Your task to perform on an android device: clear all cookies in the chrome app Image 0: 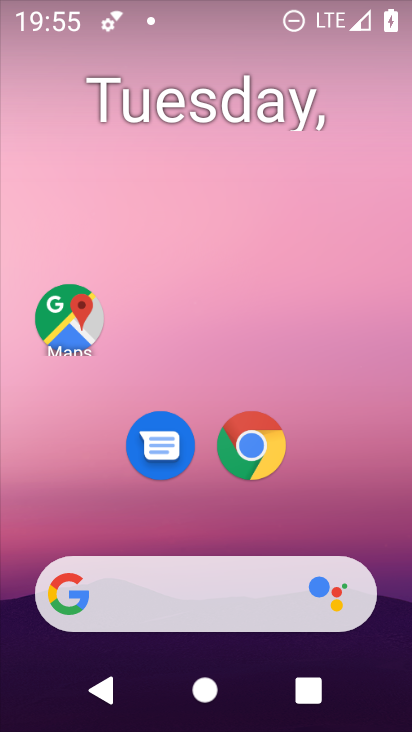
Step 0: click (265, 450)
Your task to perform on an android device: clear all cookies in the chrome app Image 1: 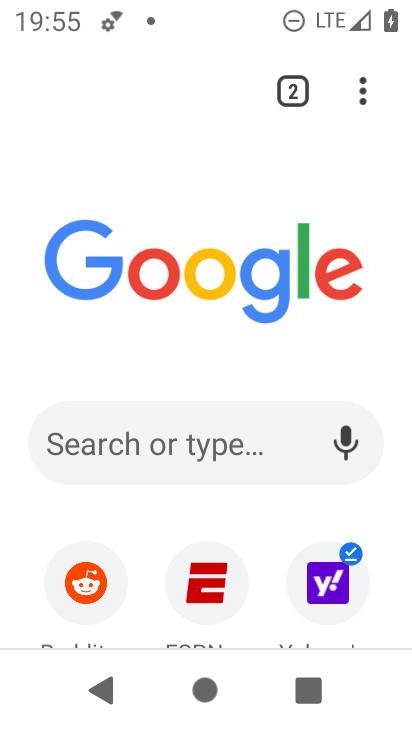
Step 1: click (353, 102)
Your task to perform on an android device: clear all cookies in the chrome app Image 2: 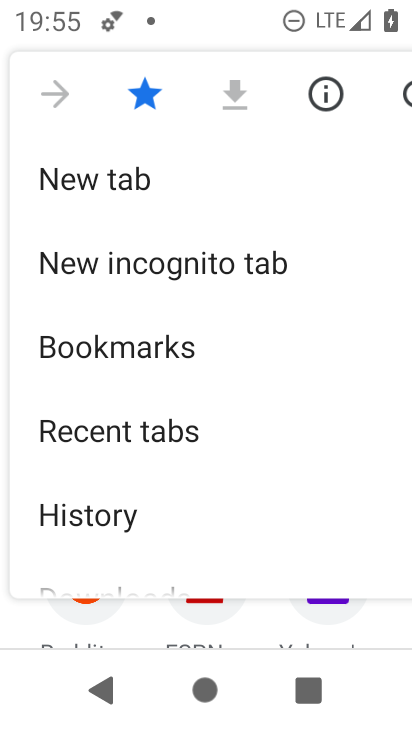
Step 2: click (75, 511)
Your task to perform on an android device: clear all cookies in the chrome app Image 3: 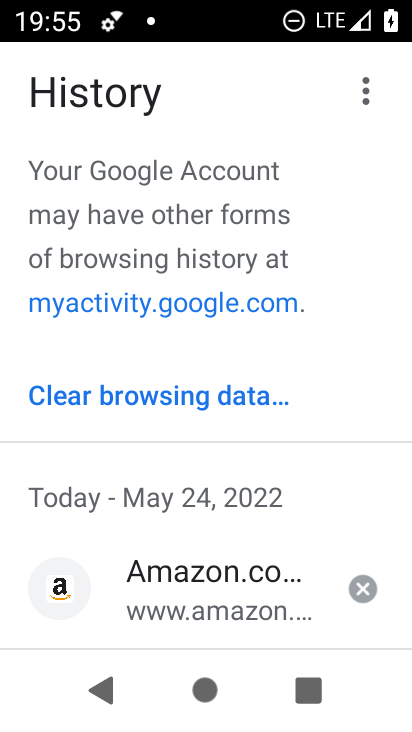
Step 3: click (134, 410)
Your task to perform on an android device: clear all cookies in the chrome app Image 4: 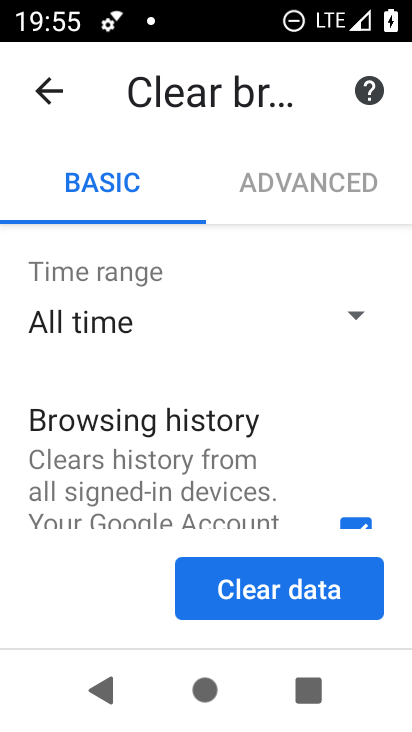
Step 4: click (363, 513)
Your task to perform on an android device: clear all cookies in the chrome app Image 5: 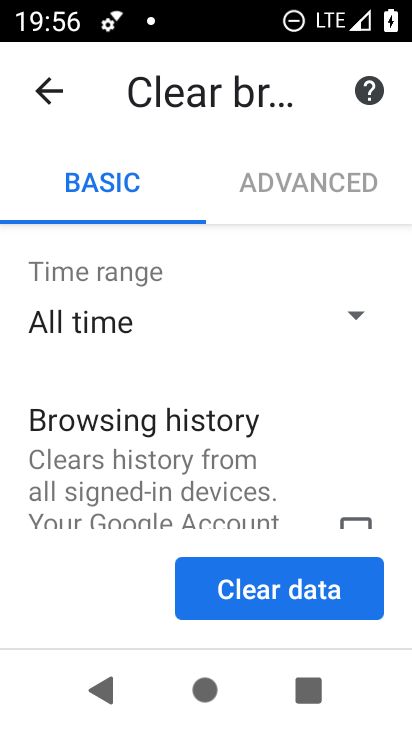
Step 5: click (275, 600)
Your task to perform on an android device: clear all cookies in the chrome app Image 6: 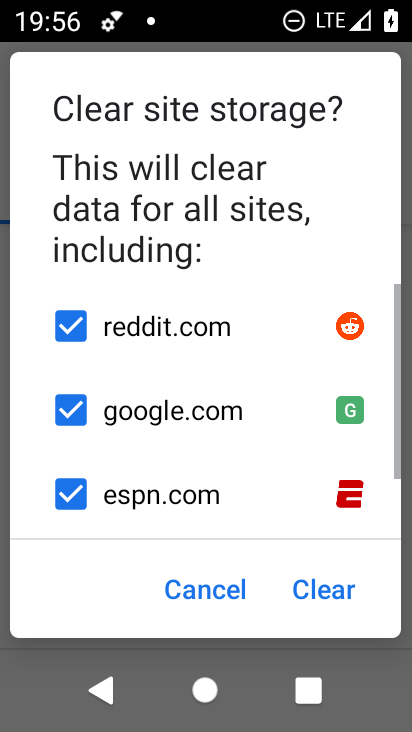
Step 6: click (214, 581)
Your task to perform on an android device: clear all cookies in the chrome app Image 7: 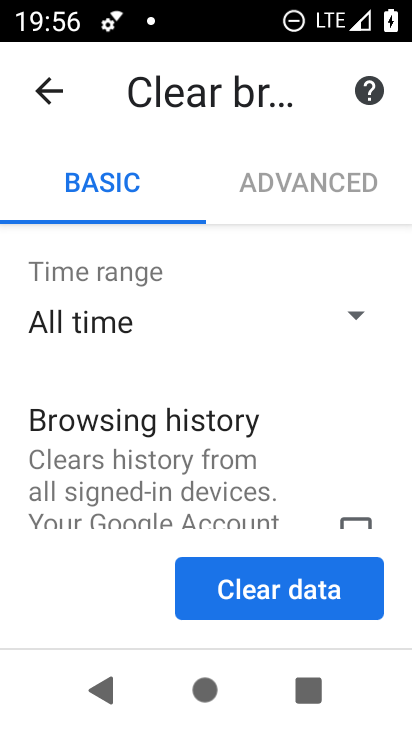
Step 7: drag from (218, 497) to (223, 355)
Your task to perform on an android device: clear all cookies in the chrome app Image 8: 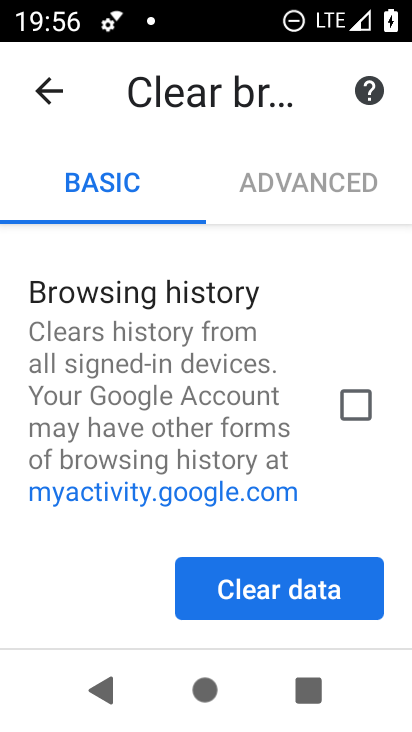
Step 8: drag from (257, 493) to (282, 258)
Your task to perform on an android device: clear all cookies in the chrome app Image 9: 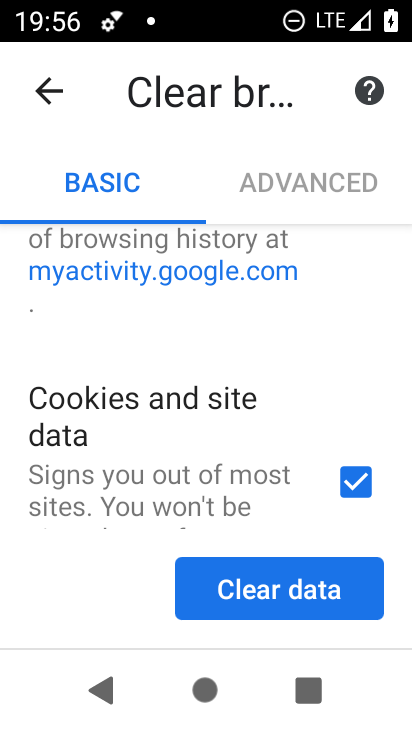
Step 9: click (336, 578)
Your task to perform on an android device: clear all cookies in the chrome app Image 10: 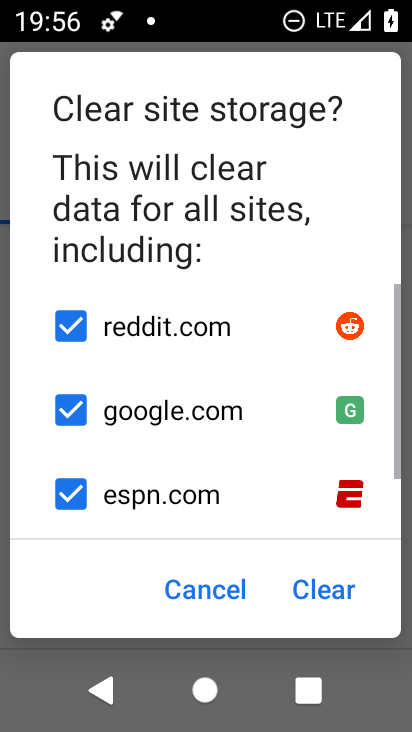
Step 10: click (311, 613)
Your task to perform on an android device: clear all cookies in the chrome app Image 11: 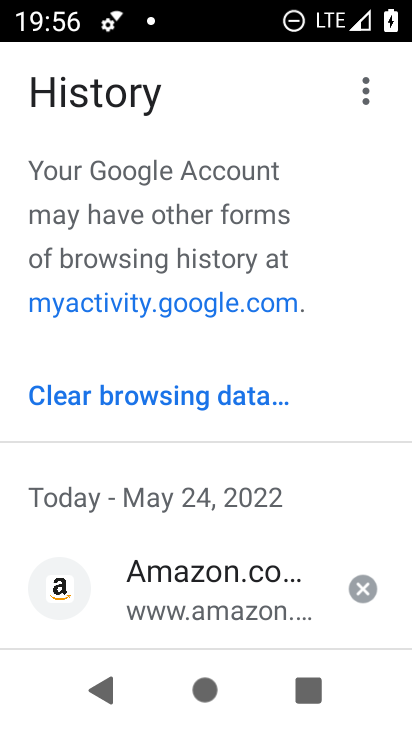
Step 11: task complete